Your task to perform on an android device: Open Google Chrome and open the bookmarks view Image 0: 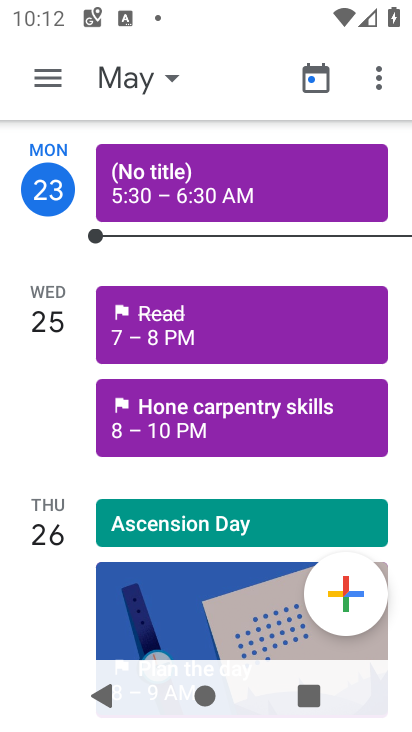
Step 0: press home button
Your task to perform on an android device: Open Google Chrome and open the bookmarks view Image 1: 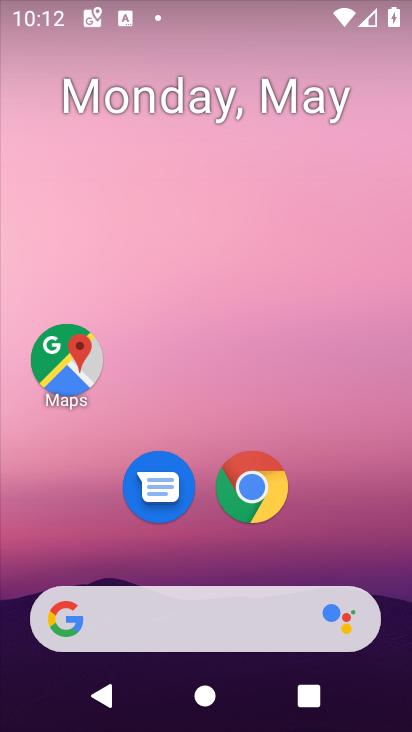
Step 1: click (254, 484)
Your task to perform on an android device: Open Google Chrome and open the bookmarks view Image 2: 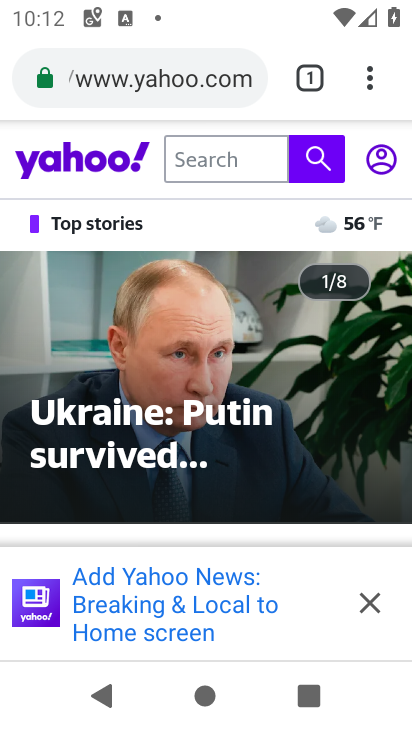
Step 2: click (379, 88)
Your task to perform on an android device: Open Google Chrome and open the bookmarks view Image 3: 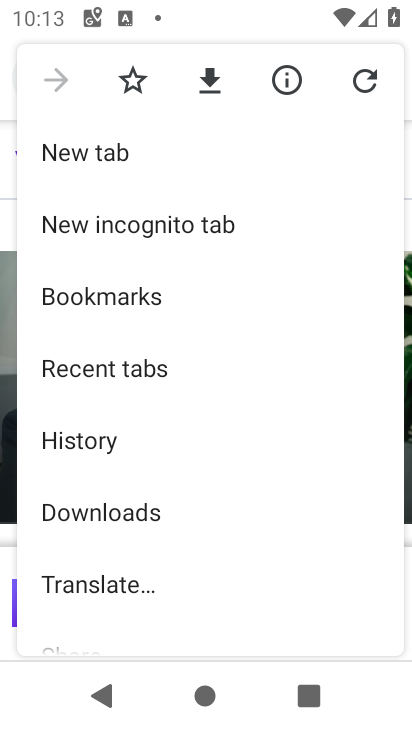
Step 3: click (148, 307)
Your task to perform on an android device: Open Google Chrome and open the bookmarks view Image 4: 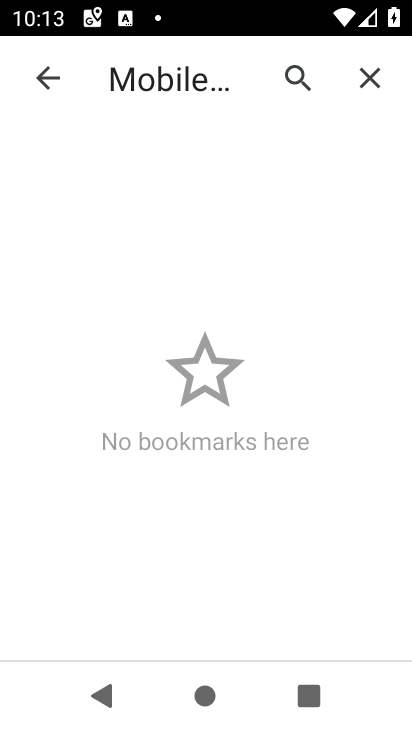
Step 4: task complete